Your task to perform on an android device: Search for the best coffee tables on Crate & Barrel Image 0: 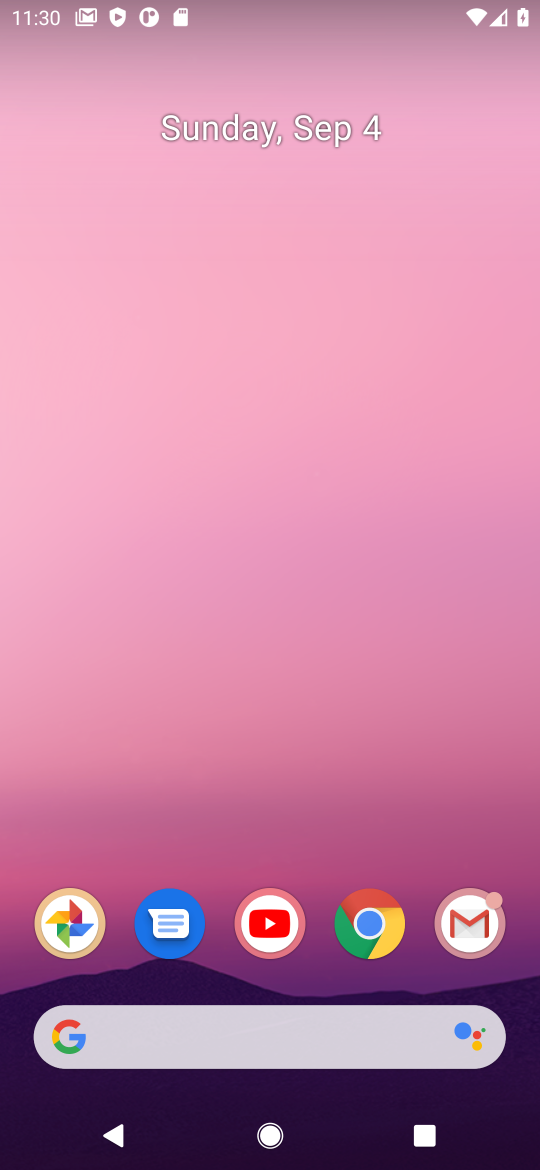
Step 0: click (370, 936)
Your task to perform on an android device: Search for the best coffee tables on Crate & Barrel Image 1: 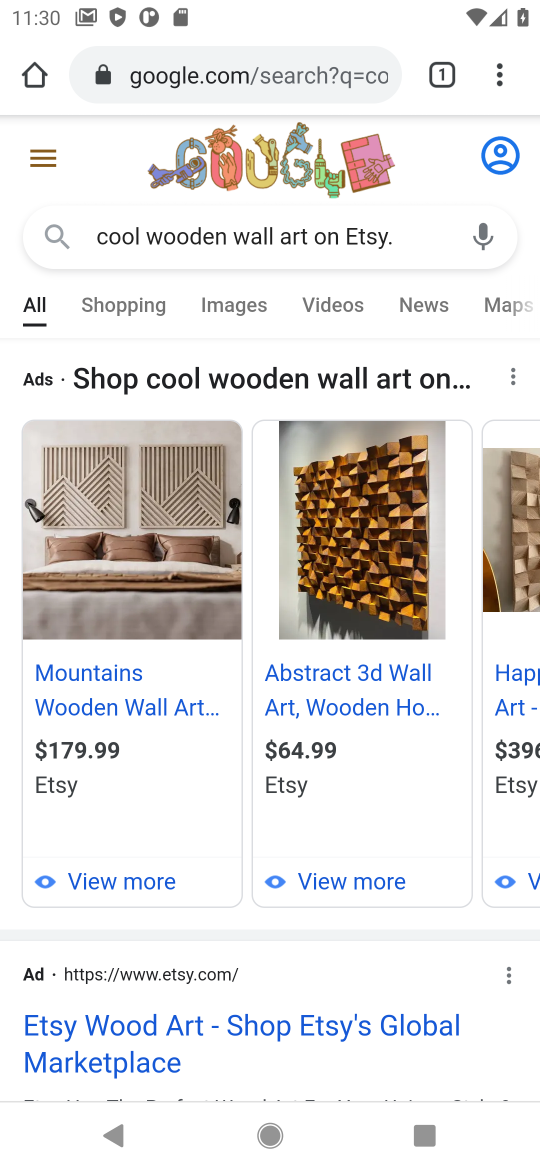
Step 1: click (260, 74)
Your task to perform on an android device: Search for the best coffee tables on Crate & Barrel Image 2: 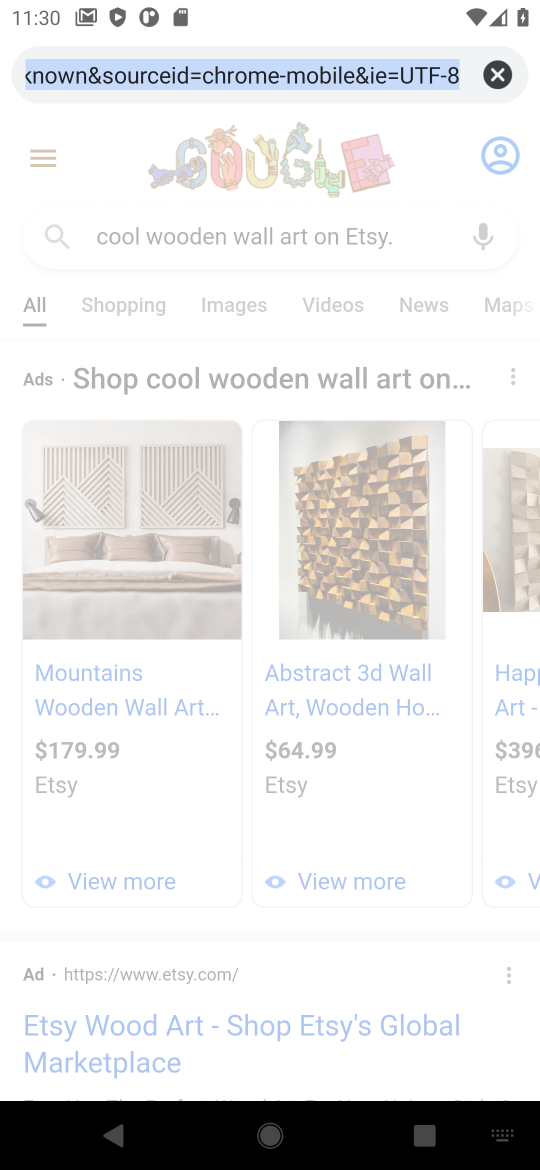
Step 2: click (500, 70)
Your task to perform on an android device: Search for the best coffee tables on Crate & Barrel Image 3: 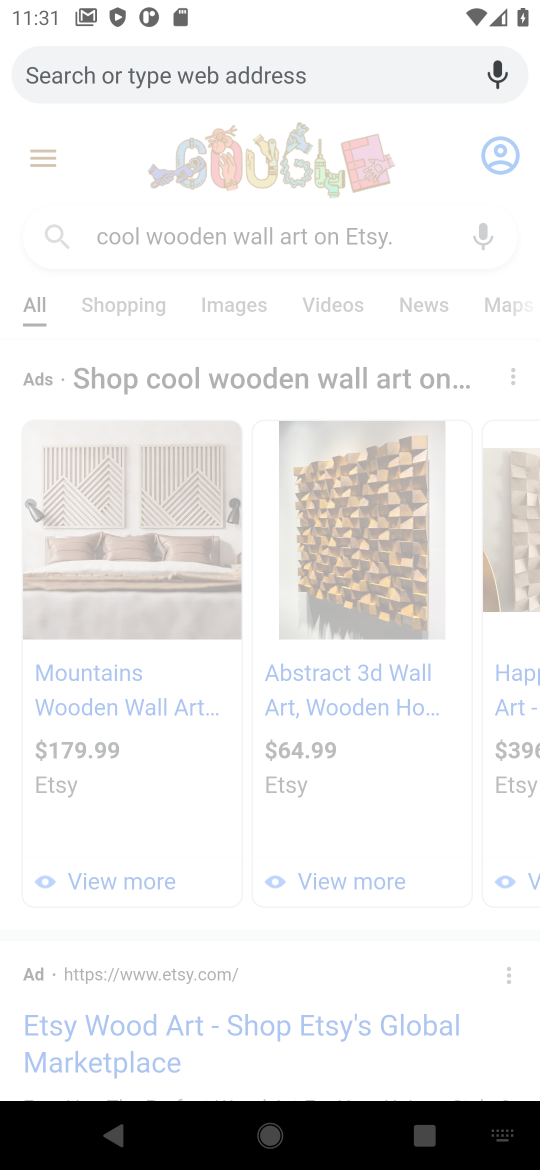
Step 3: type "the best coffee tables on Crate & Barrel"
Your task to perform on an android device: Search for the best coffee tables on Crate & Barrel Image 4: 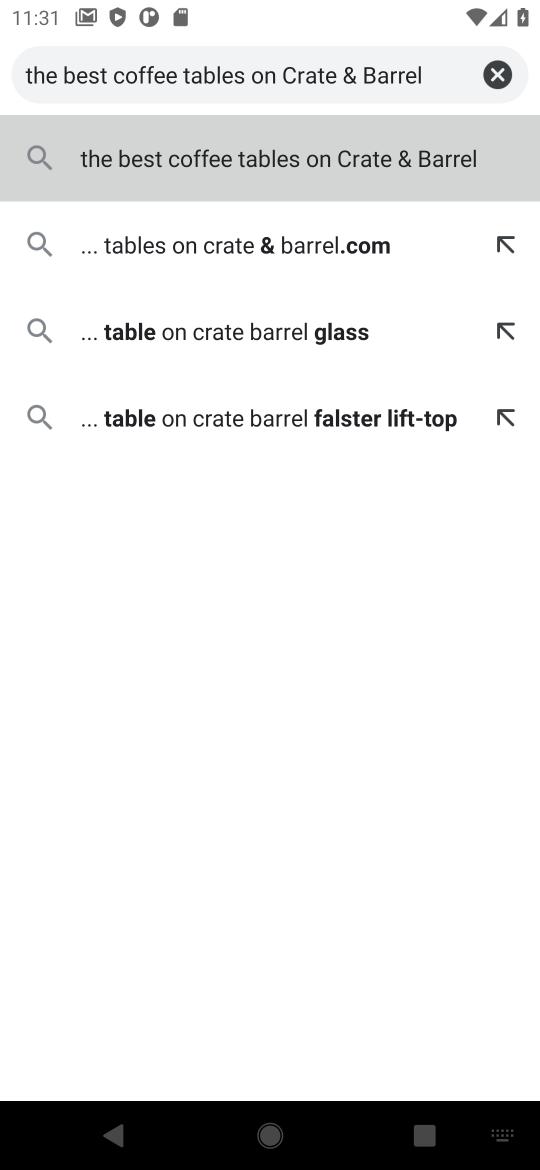
Step 4: click (323, 174)
Your task to perform on an android device: Search for the best coffee tables on Crate & Barrel Image 5: 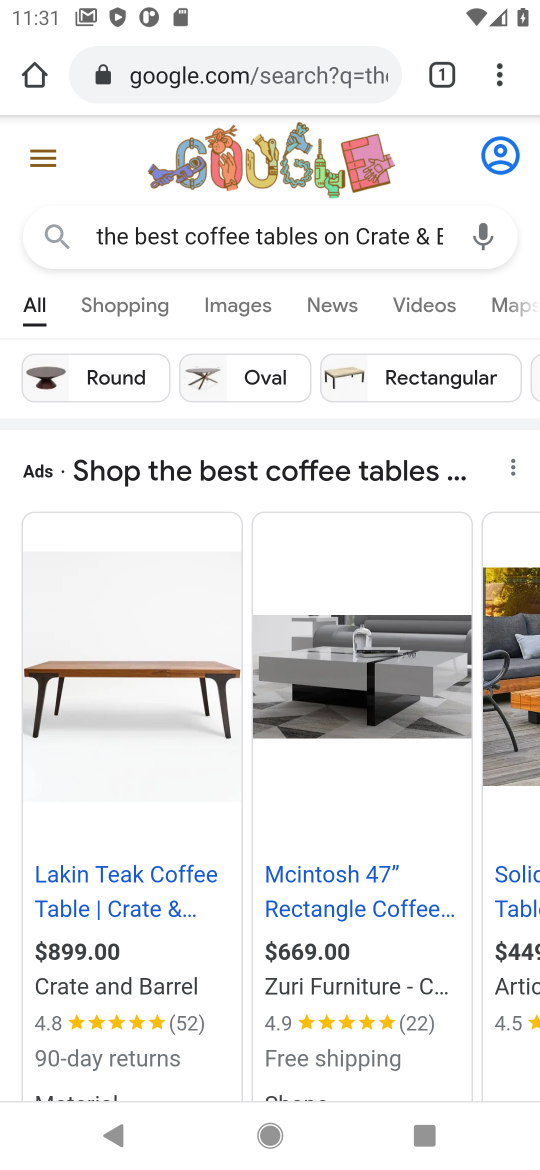
Step 5: task complete